Your task to perform on an android device: Open Yahoo.com Image 0: 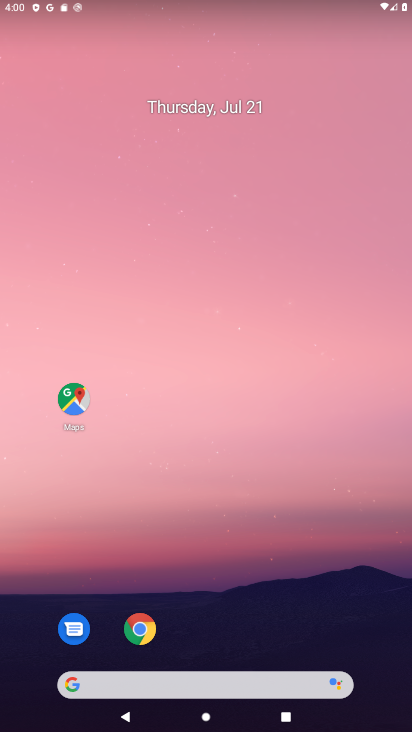
Step 0: click (149, 626)
Your task to perform on an android device: Open Yahoo.com Image 1: 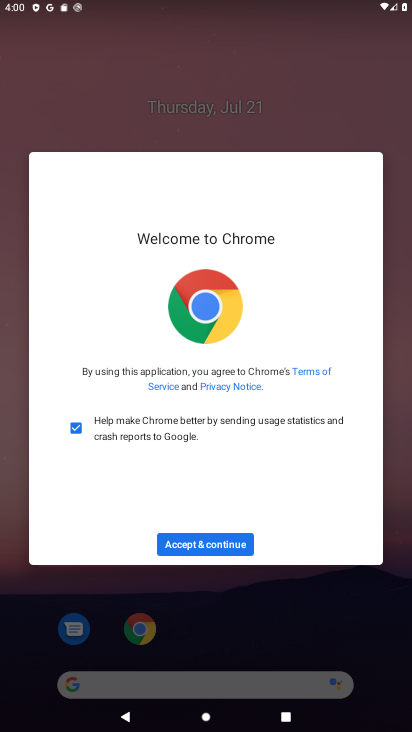
Step 1: click (203, 537)
Your task to perform on an android device: Open Yahoo.com Image 2: 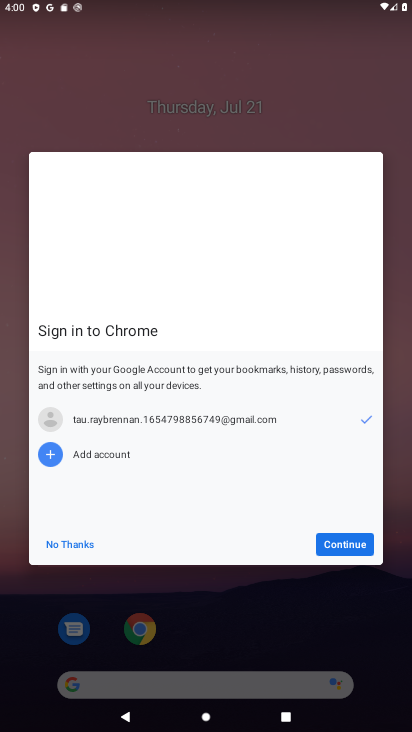
Step 2: click (334, 552)
Your task to perform on an android device: Open Yahoo.com Image 3: 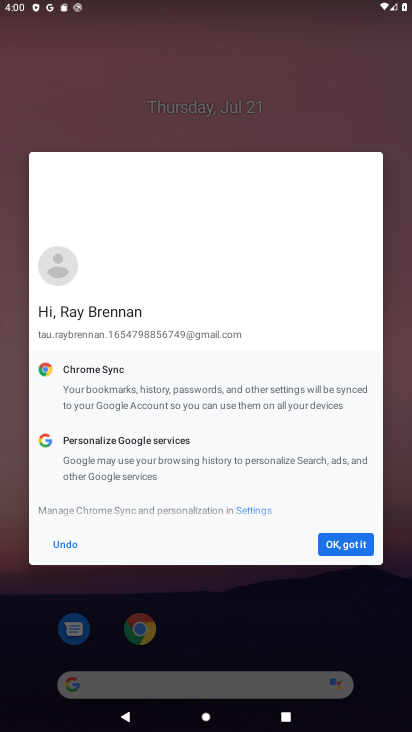
Step 3: click (339, 548)
Your task to perform on an android device: Open Yahoo.com Image 4: 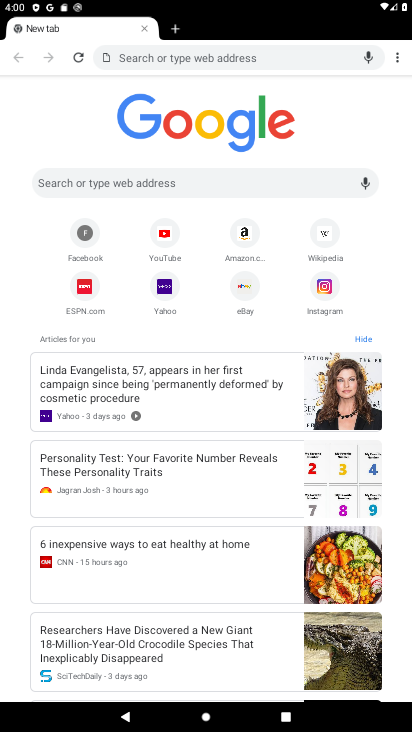
Step 4: click (160, 289)
Your task to perform on an android device: Open Yahoo.com Image 5: 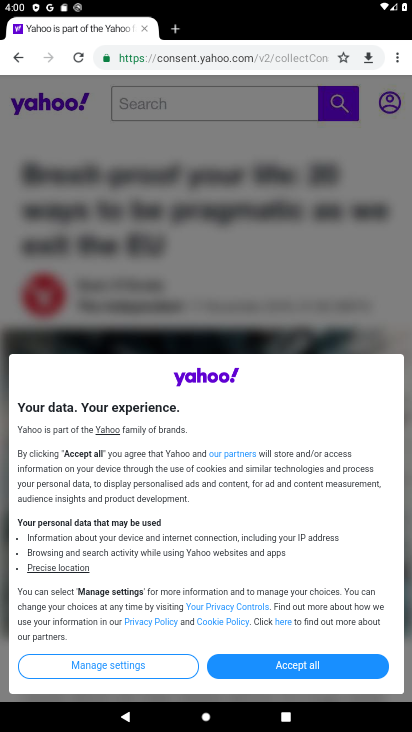
Step 5: click (322, 671)
Your task to perform on an android device: Open Yahoo.com Image 6: 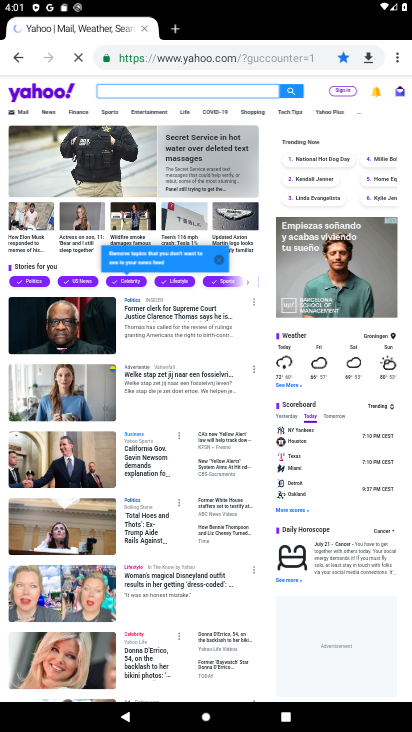
Step 6: task complete